Your task to perform on an android device: turn on improve location accuracy Image 0: 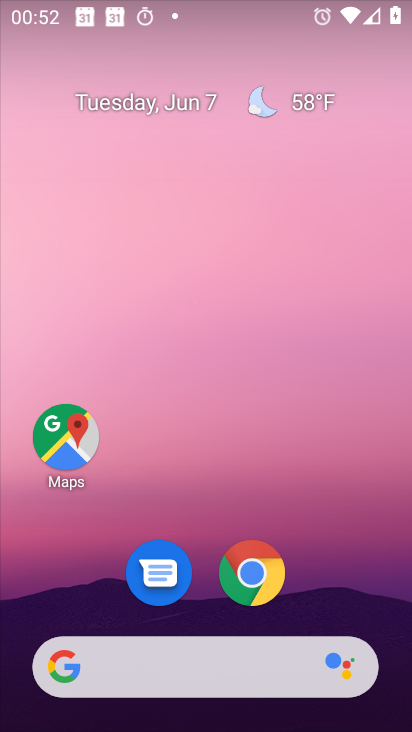
Step 0: press home button
Your task to perform on an android device: turn on improve location accuracy Image 1: 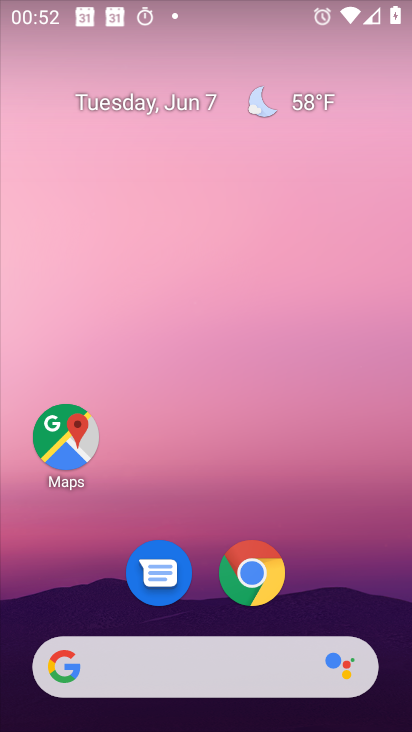
Step 1: drag from (389, 608) to (294, 4)
Your task to perform on an android device: turn on improve location accuracy Image 2: 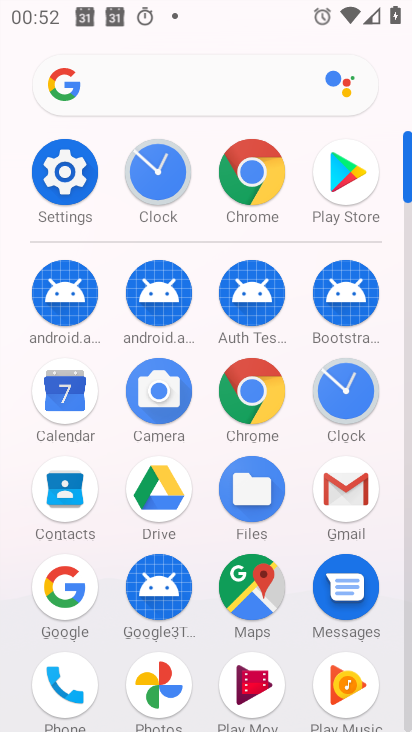
Step 2: click (84, 164)
Your task to perform on an android device: turn on improve location accuracy Image 3: 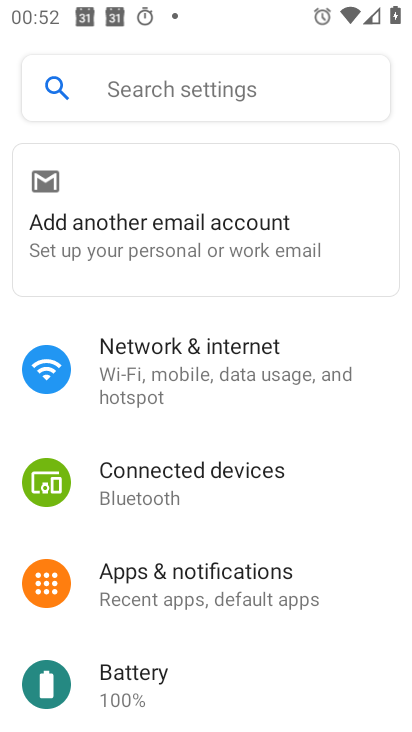
Step 3: drag from (227, 586) to (203, 66)
Your task to perform on an android device: turn on improve location accuracy Image 4: 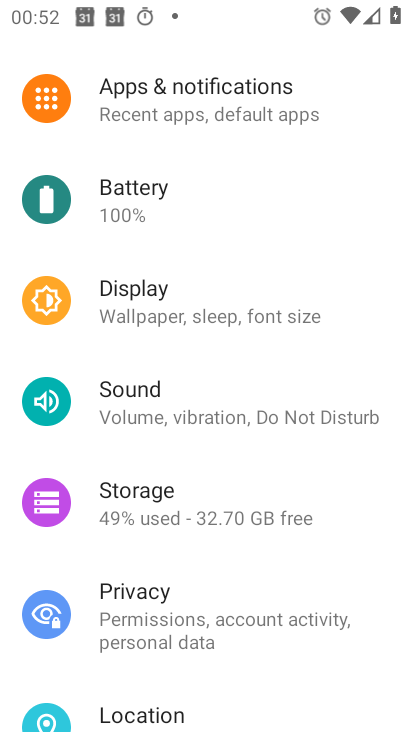
Step 4: drag from (261, 503) to (240, 236)
Your task to perform on an android device: turn on improve location accuracy Image 5: 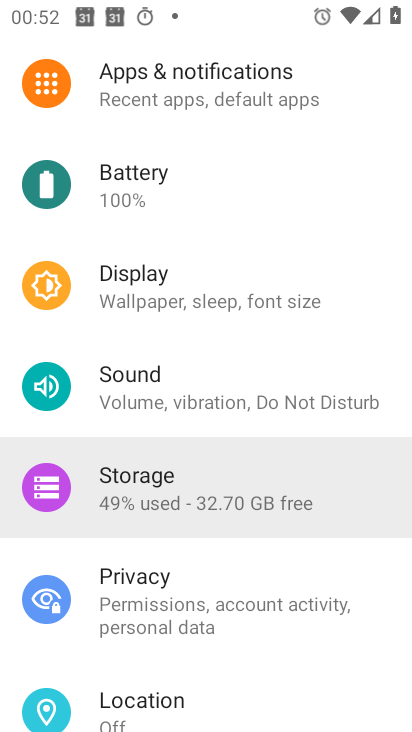
Step 5: drag from (255, 476) to (237, 335)
Your task to perform on an android device: turn on improve location accuracy Image 6: 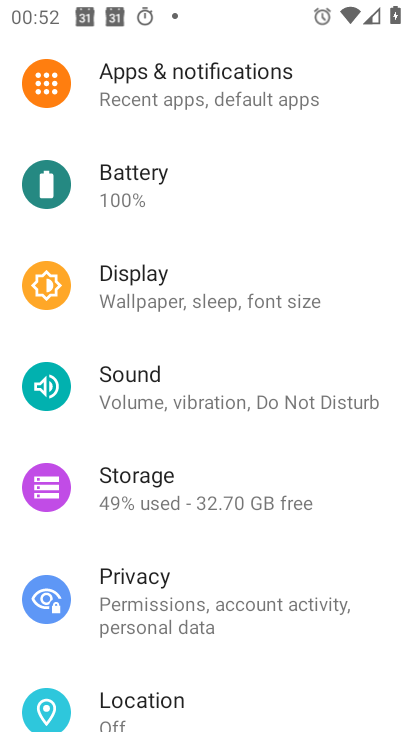
Step 6: click (180, 691)
Your task to perform on an android device: turn on improve location accuracy Image 7: 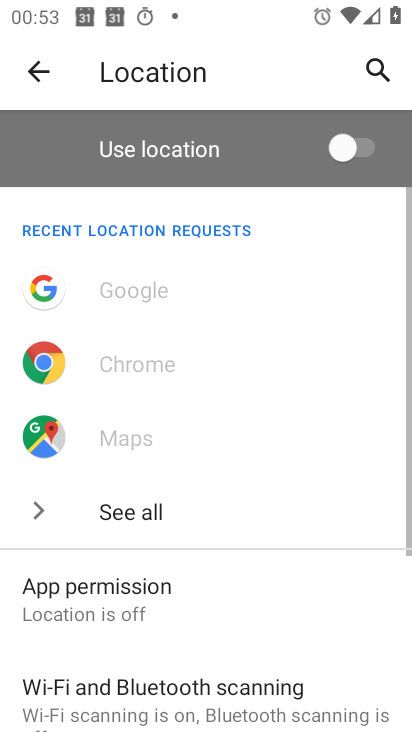
Step 7: drag from (199, 660) to (197, 213)
Your task to perform on an android device: turn on improve location accuracy Image 8: 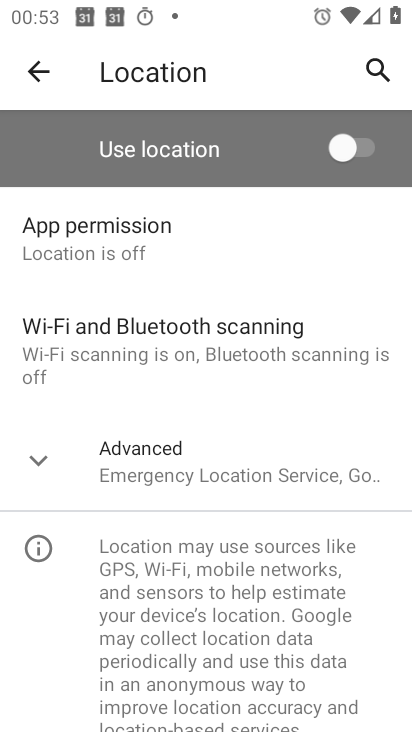
Step 8: click (135, 463)
Your task to perform on an android device: turn on improve location accuracy Image 9: 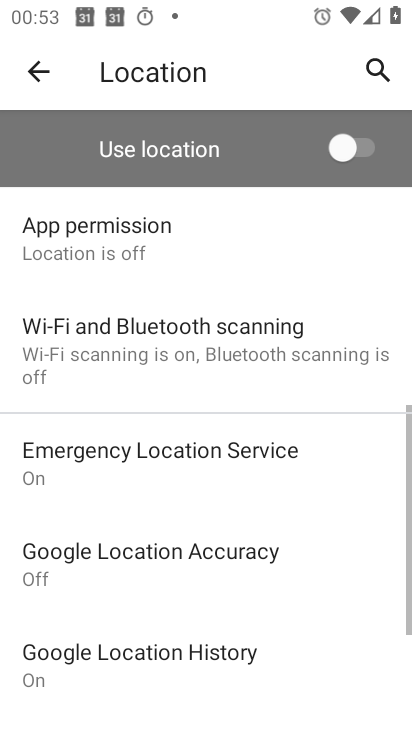
Step 9: click (136, 569)
Your task to perform on an android device: turn on improve location accuracy Image 10: 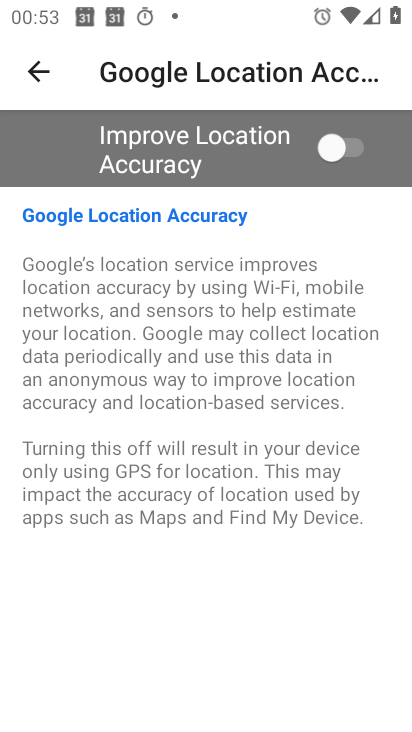
Step 10: click (239, 144)
Your task to perform on an android device: turn on improve location accuracy Image 11: 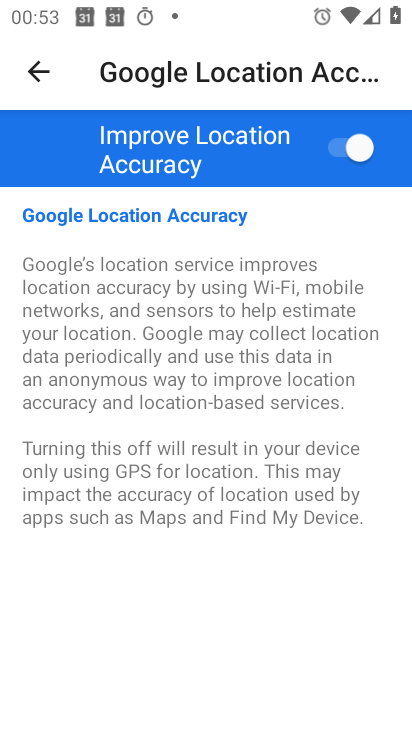
Step 11: task complete